Your task to perform on an android device: check out phone information Image 0: 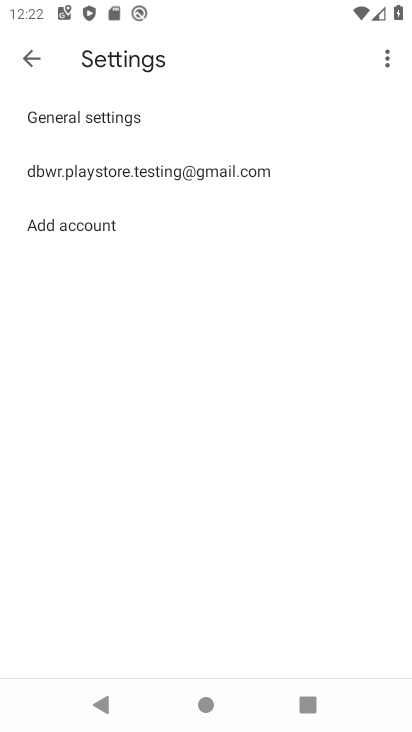
Step 0: press home button
Your task to perform on an android device: check out phone information Image 1: 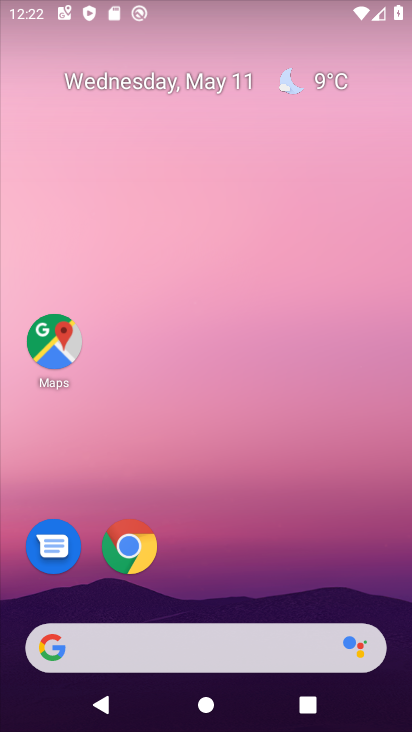
Step 1: drag from (356, 580) to (299, 65)
Your task to perform on an android device: check out phone information Image 2: 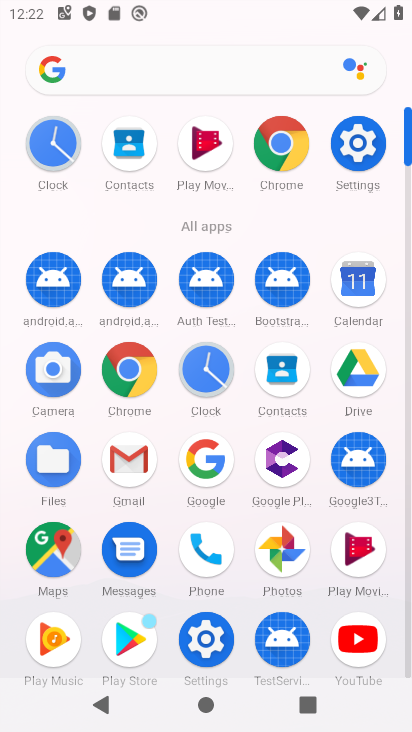
Step 2: click (202, 646)
Your task to perform on an android device: check out phone information Image 3: 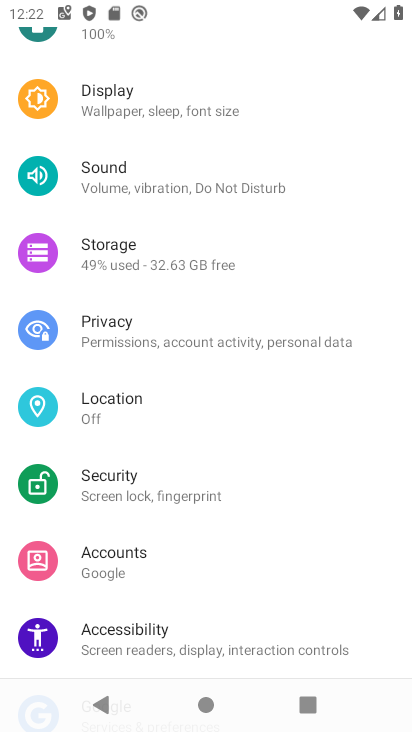
Step 3: drag from (264, 632) to (220, 101)
Your task to perform on an android device: check out phone information Image 4: 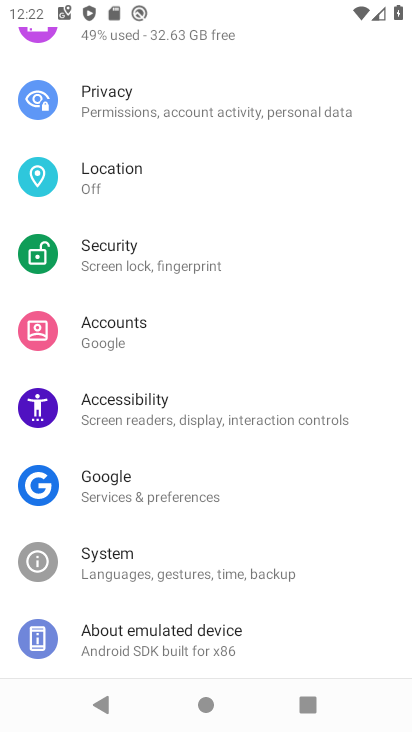
Step 4: click (252, 649)
Your task to perform on an android device: check out phone information Image 5: 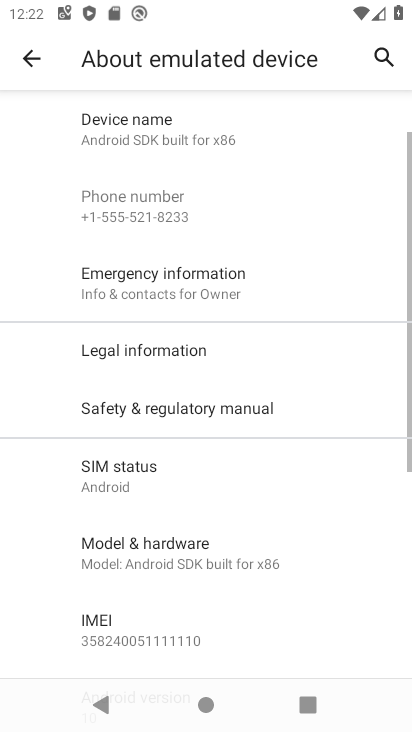
Step 5: task complete